Your task to perform on an android device: check out phone information Image 0: 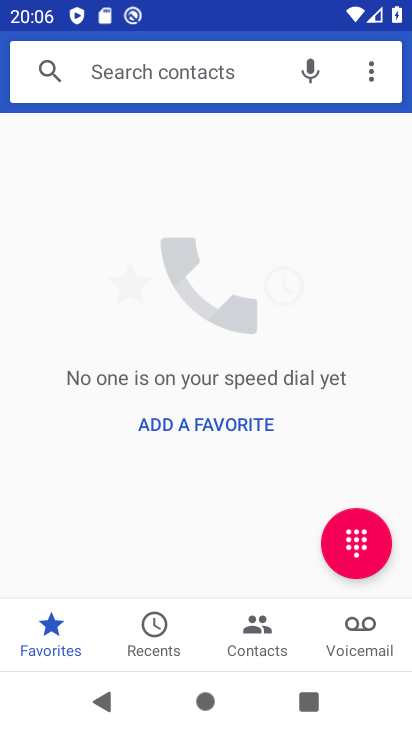
Step 0: press home button
Your task to perform on an android device: check out phone information Image 1: 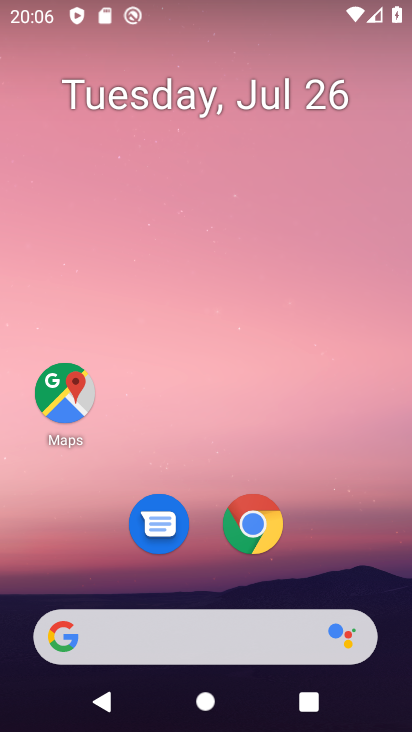
Step 1: drag from (181, 628) to (334, 49)
Your task to perform on an android device: check out phone information Image 2: 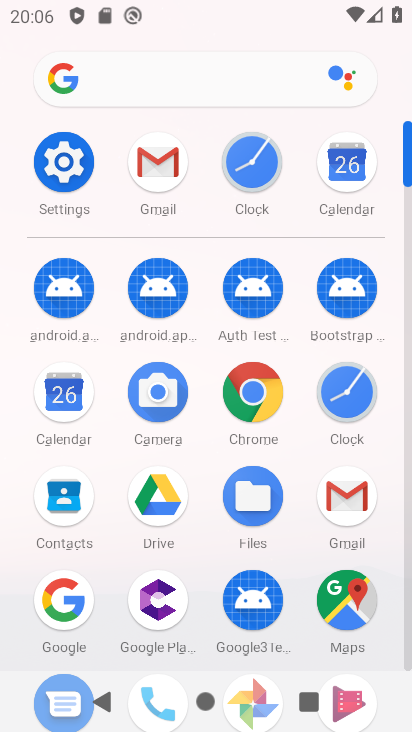
Step 2: click (71, 164)
Your task to perform on an android device: check out phone information Image 3: 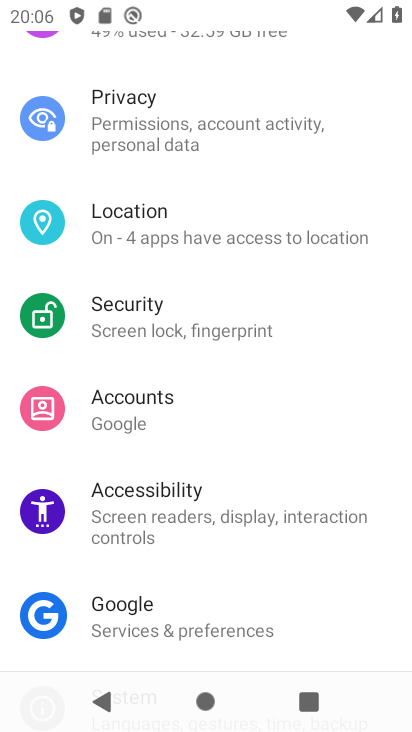
Step 3: drag from (226, 603) to (391, 25)
Your task to perform on an android device: check out phone information Image 4: 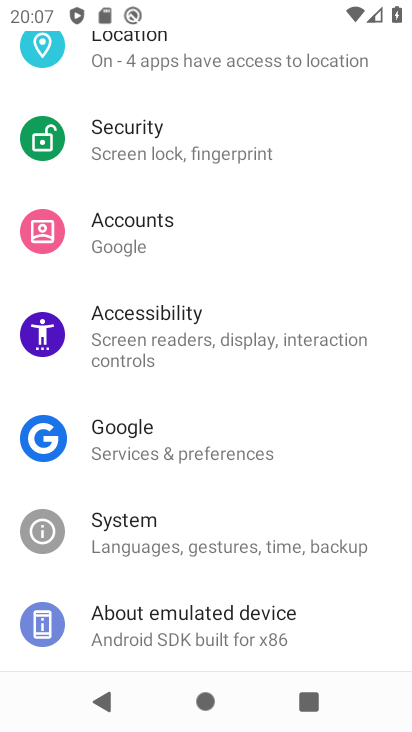
Step 4: click (207, 620)
Your task to perform on an android device: check out phone information Image 5: 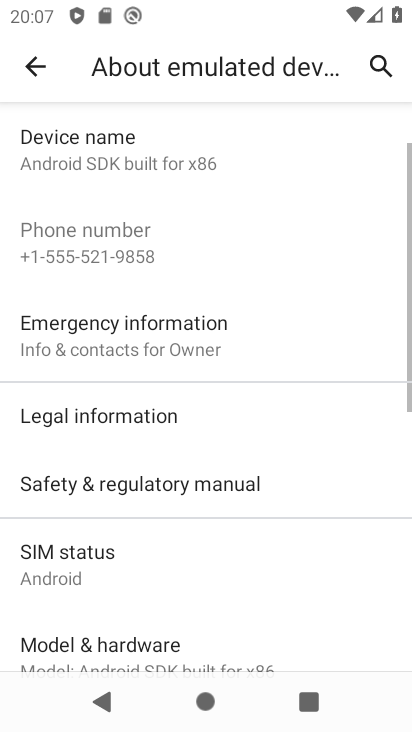
Step 5: task complete